Your task to perform on an android device: Add "macbook pro" to the cart on costco, then select checkout. Image 0: 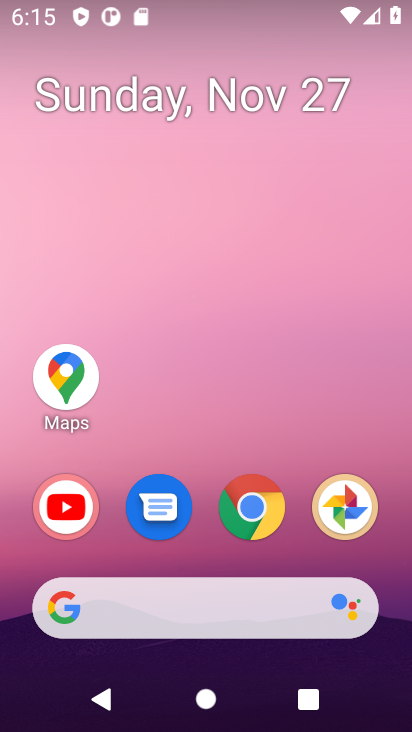
Step 0: click (246, 526)
Your task to perform on an android device: Add "macbook pro" to the cart on costco, then select checkout. Image 1: 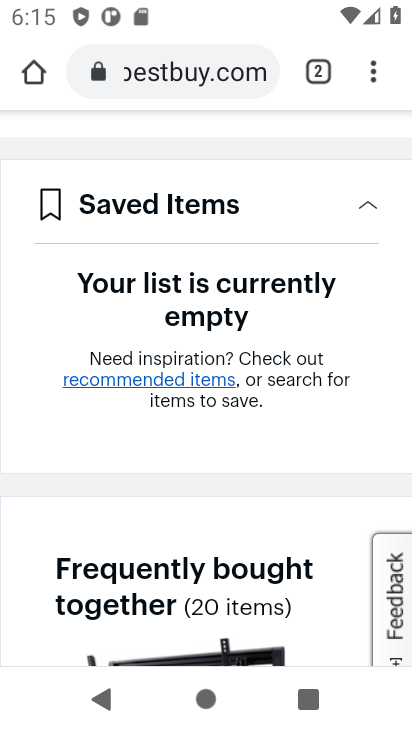
Step 1: click (184, 68)
Your task to perform on an android device: Add "macbook pro" to the cart on costco, then select checkout. Image 2: 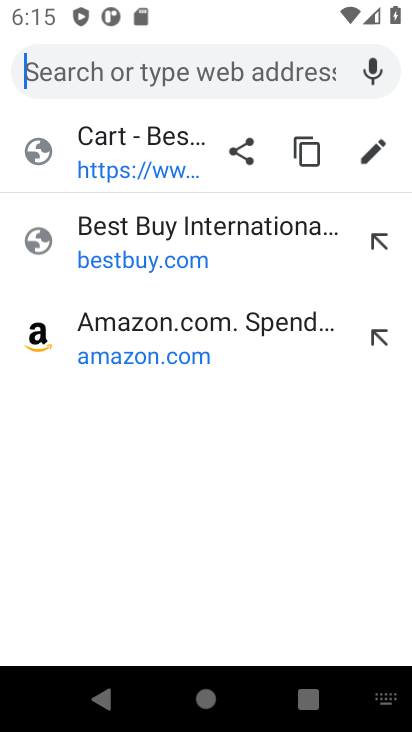
Step 2: type "costco"
Your task to perform on an android device: Add "macbook pro" to the cart on costco, then select checkout. Image 3: 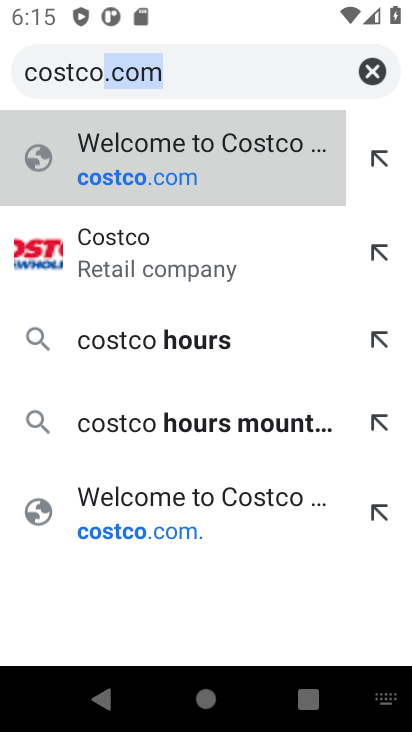
Step 3: click (211, 171)
Your task to perform on an android device: Add "macbook pro" to the cart on costco, then select checkout. Image 4: 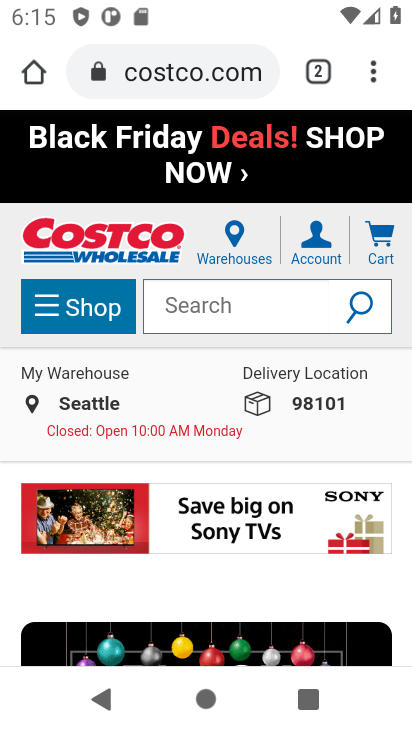
Step 4: click (228, 317)
Your task to perform on an android device: Add "macbook pro" to the cart on costco, then select checkout. Image 5: 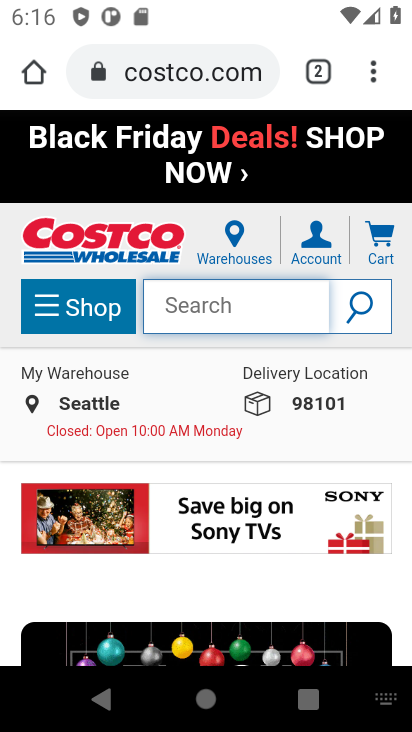
Step 5: type "macbook pro"
Your task to perform on an android device: Add "macbook pro" to the cart on costco, then select checkout. Image 6: 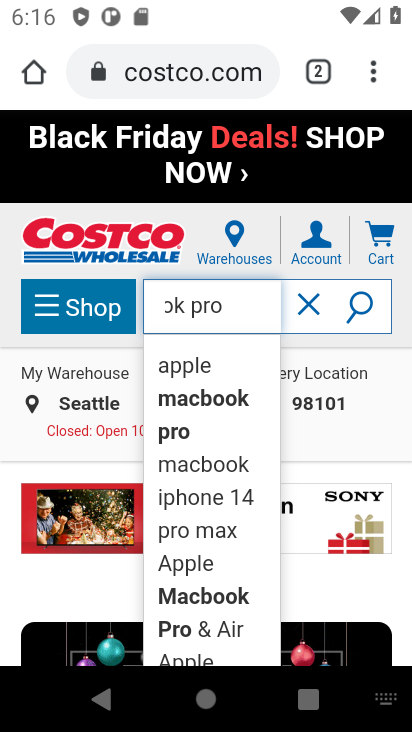
Step 6: click (359, 306)
Your task to perform on an android device: Add "macbook pro" to the cart on costco, then select checkout. Image 7: 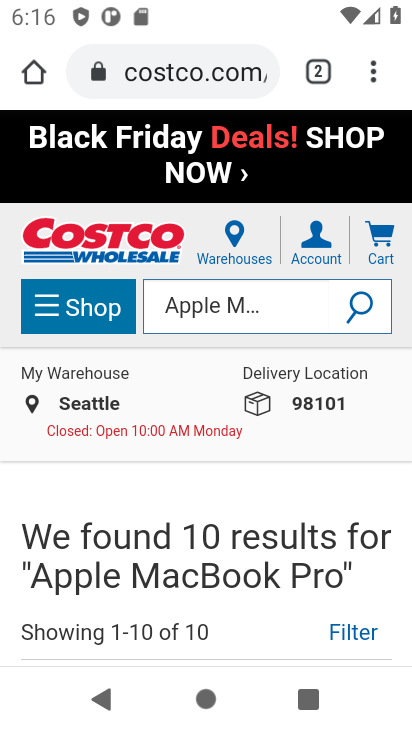
Step 7: drag from (249, 581) to (253, 289)
Your task to perform on an android device: Add "macbook pro" to the cart on costco, then select checkout. Image 8: 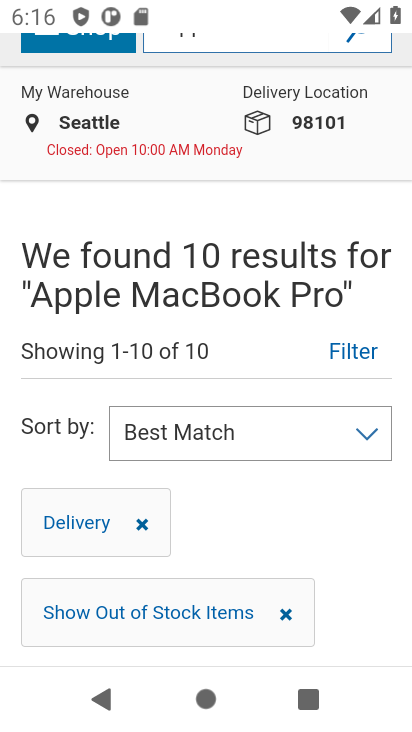
Step 8: drag from (217, 512) to (240, 114)
Your task to perform on an android device: Add "macbook pro" to the cart on costco, then select checkout. Image 9: 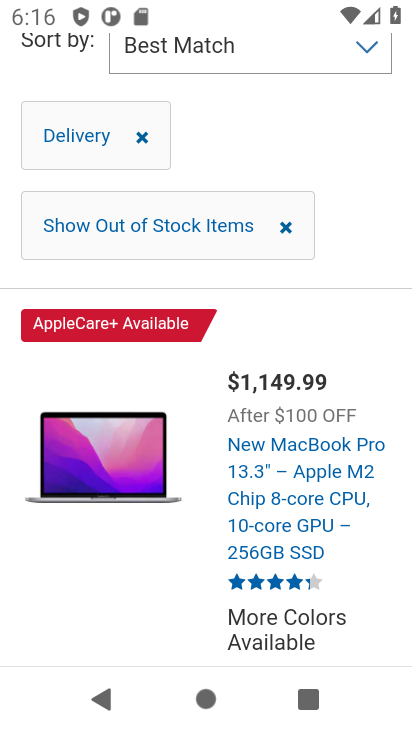
Step 9: drag from (274, 524) to (266, 348)
Your task to perform on an android device: Add "macbook pro" to the cart on costco, then select checkout. Image 10: 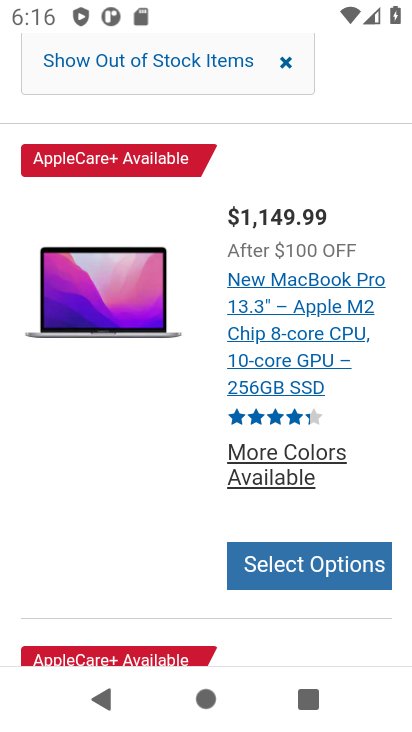
Step 10: click (149, 300)
Your task to perform on an android device: Add "macbook pro" to the cart on costco, then select checkout. Image 11: 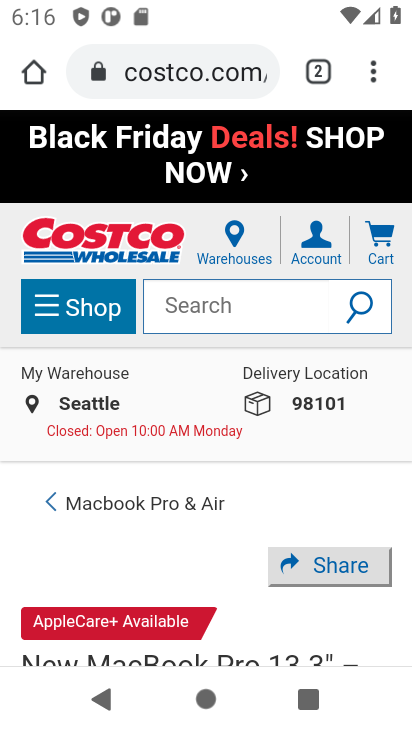
Step 11: drag from (230, 568) to (285, 149)
Your task to perform on an android device: Add "macbook pro" to the cart on costco, then select checkout. Image 12: 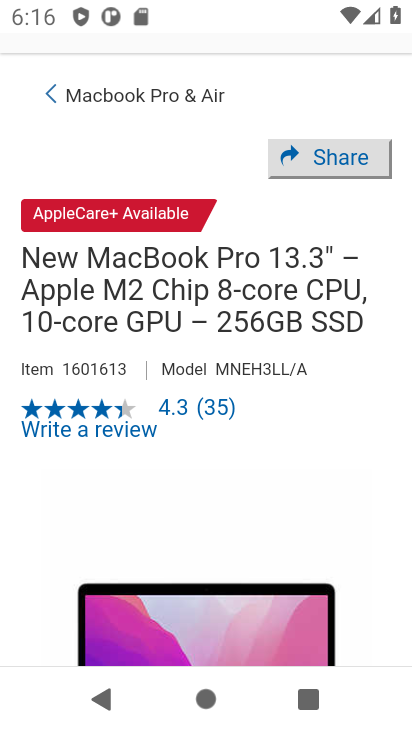
Step 12: drag from (191, 520) to (220, 172)
Your task to perform on an android device: Add "macbook pro" to the cart on costco, then select checkout. Image 13: 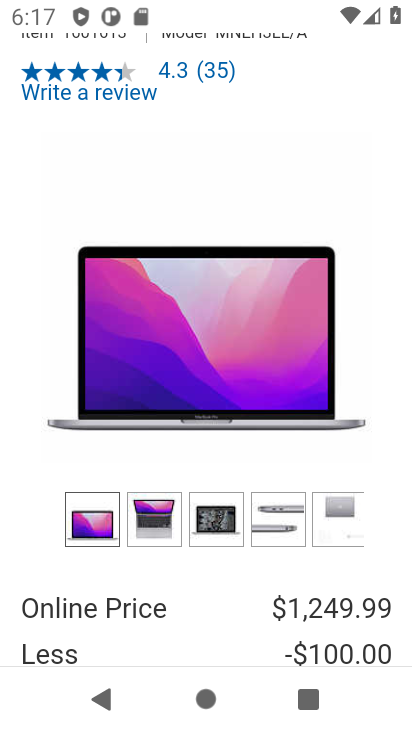
Step 13: drag from (224, 524) to (224, 310)
Your task to perform on an android device: Add "macbook pro" to the cart on costco, then select checkout. Image 14: 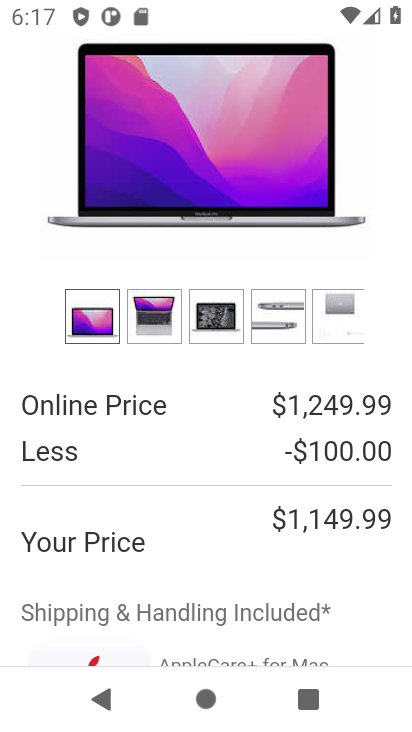
Step 14: drag from (209, 563) to (213, 233)
Your task to perform on an android device: Add "macbook pro" to the cart on costco, then select checkout. Image 15: 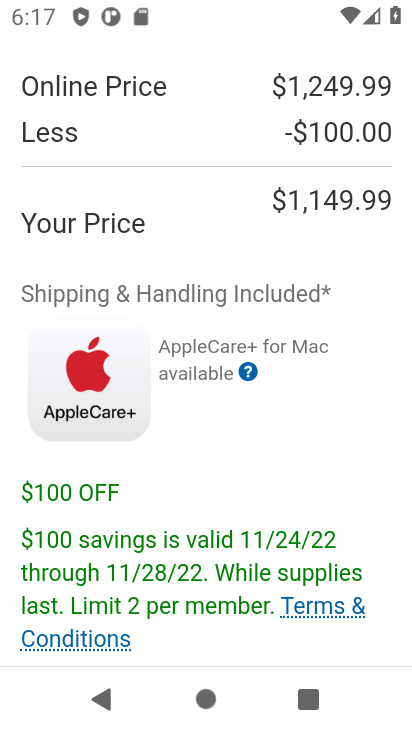
Step 15: drag from (242, 507) to (259, 272)
Your task to perform on an android device: Add "macbook pro" to the cart on costco, then select checkout. Image 16: 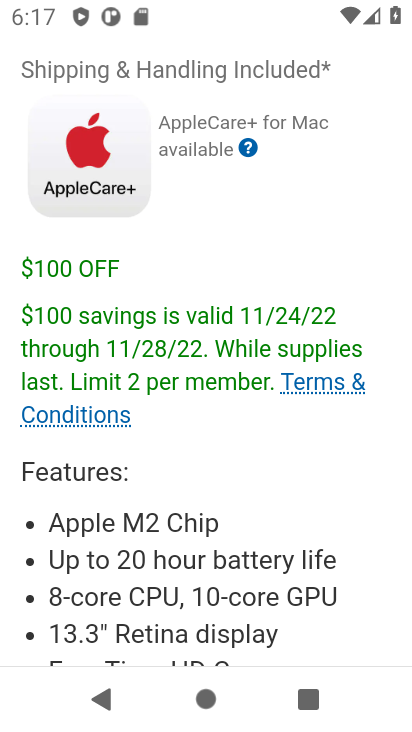
Step 16: drag from (232, 619) to (257, 325)
Your task to perform on an android device: Add "macbook pro" to the cart on costco, then select checkout. Image 17: 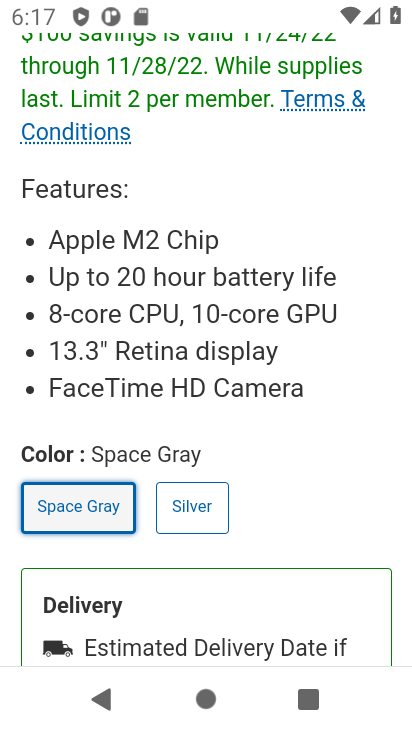
Step 17: drag from (236, 586) to (278, 265)
Your task to perform on an android device: Add "macbook pro" to the cart on costco, then select checkout. Image 18: 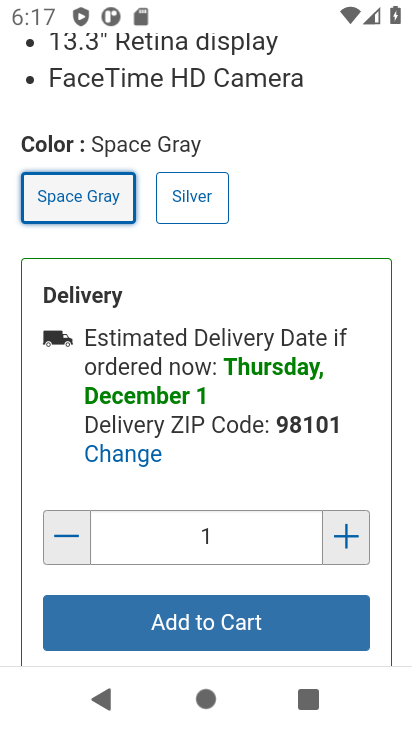
Step 18: click (246, 623)
Your task to perform on an android device: Add "macbook pro" to the cart on costco, then select checkout. Image 19: 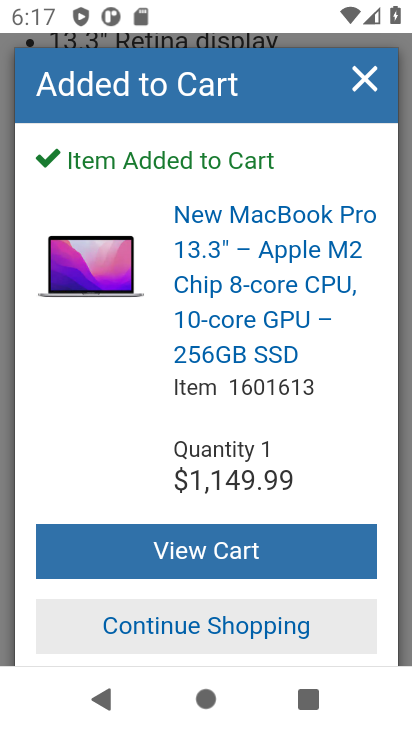
Step 19: click (266, 544)
Your task to perform on an android device: Add "macbook pro" to the cart on costco, then select checkout. Image 20: 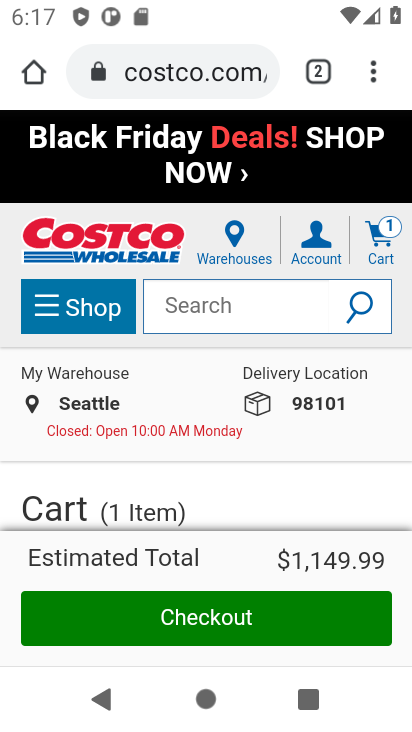
Step 20: click (254, 603)
Your task to perform on an android device: Add "macbook pro" to the cart on costco, then select checkout. Image 21: 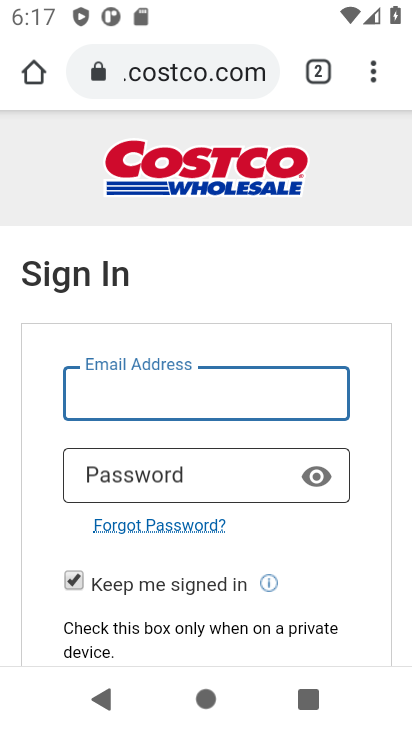
Step 21: task complete